Your task to perform on an android device: Open the web browser Image 0: 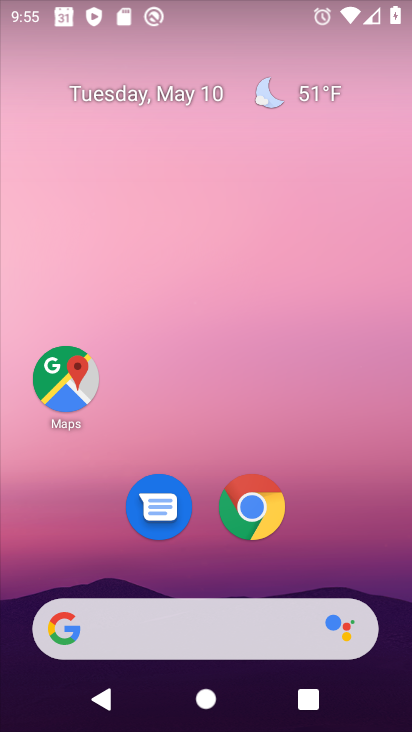
Step 0: click (145, 612)
Your task to perform on an android device: Open the web browser Image 1: 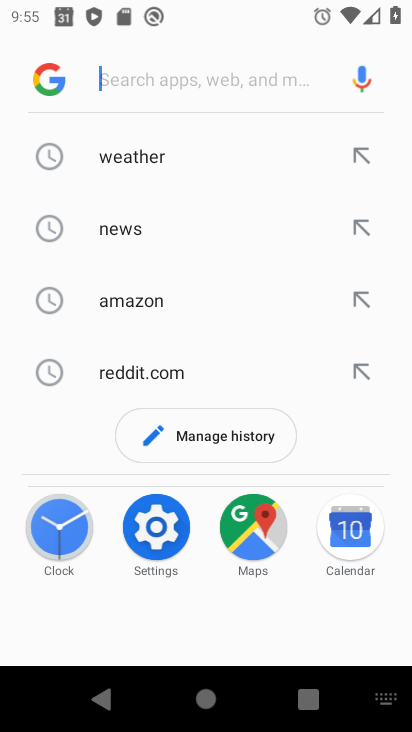
Step 1: task complete